Your task to perform on an android device: Open CNN.com Image 0: 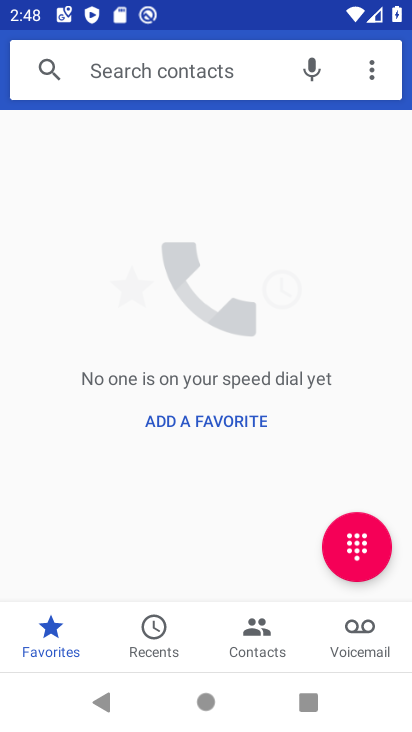
Step 0: press back button
Your task to perform on an android device: Open CNN.com Image 1: 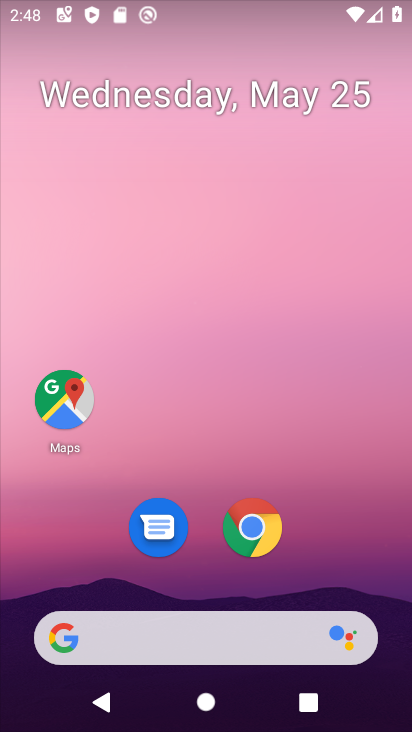
Step 1: click (261, 528)
Your task to perform on an android device: Open CNN.com Image 2: 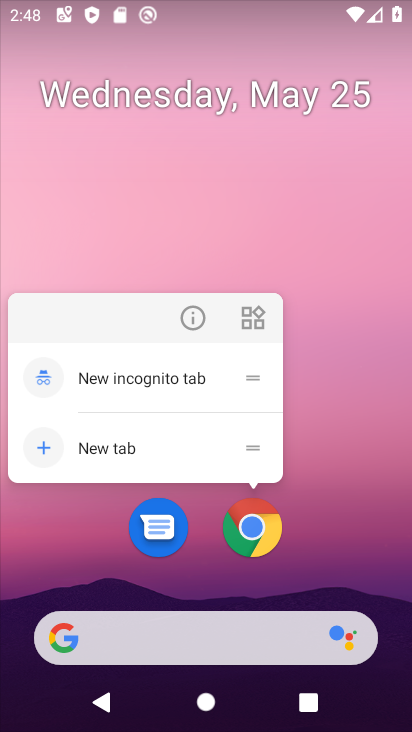
Step 2: click (230, 525)
Your task to perform on an android device: Open CNN.com Image 3: 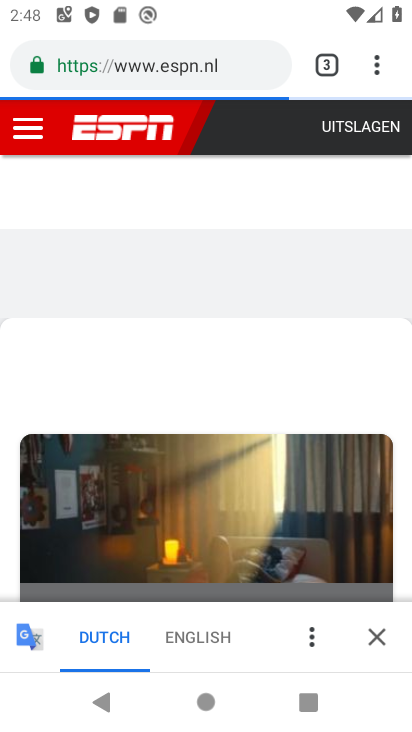
Step 3: click (323, 56)
Your task to perform on an android device: Open CNN.com Image 4: 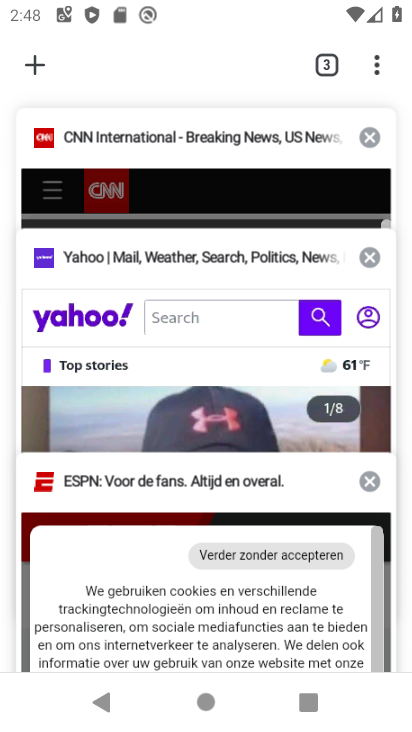
Step 4: click (103, 163)
Your task to perform on an android device: Open CNN.com Image 5: 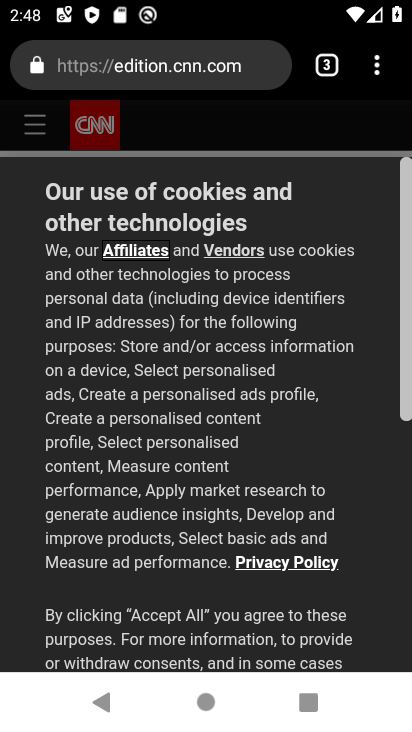
Step 5: task complete